Your task to perform on an android device: Open calendar and show me the third week of next month Image 0: 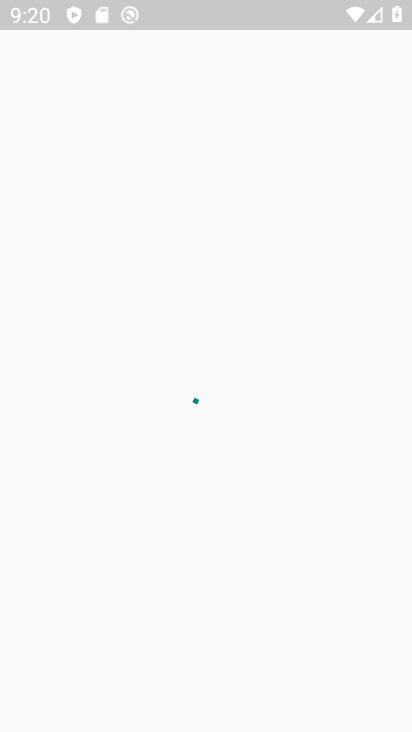
Step 0: press home button
Your task to perform on an android device: Open calendar and show me the third week of next month Image 1: 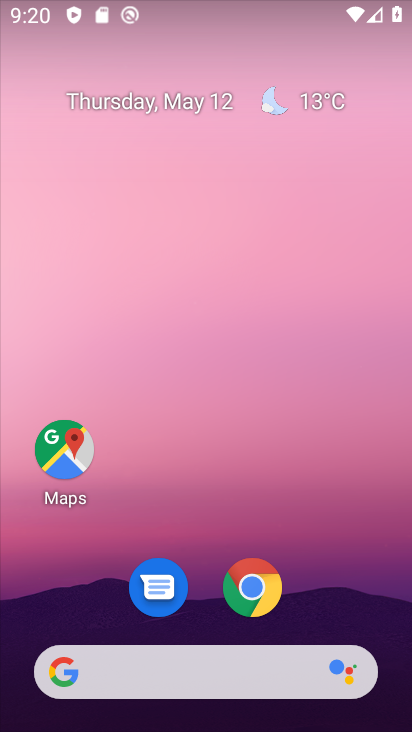
Step 1: drag from (378, 576) to (333, 78)
Your task to perform on an android device: Open calendar and show me the third week of next month Image 2: 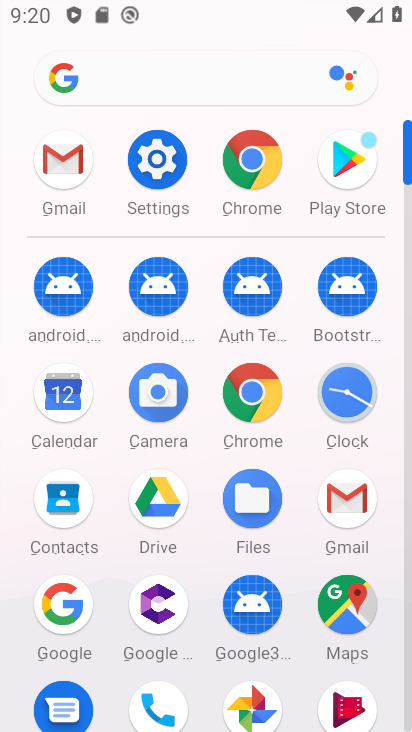
Step 2: click (61, 404)
Your task to perform on an android device: Open calendar and show me the third week of next month Image 3: 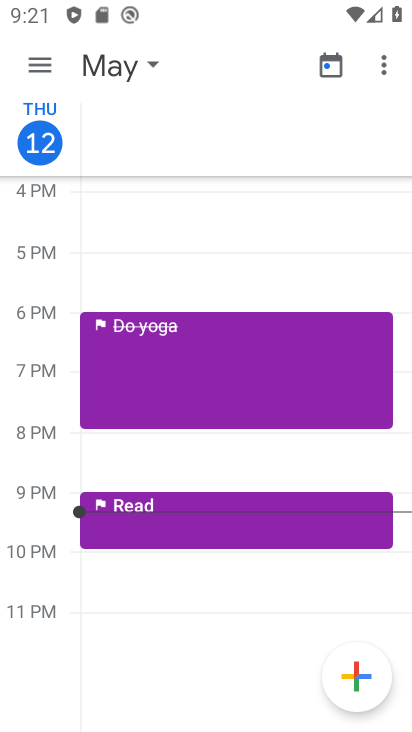
Step 3: click (132, 75)
Your task to perform on an android device: Open calendar and show me the third week of next month Image 4: 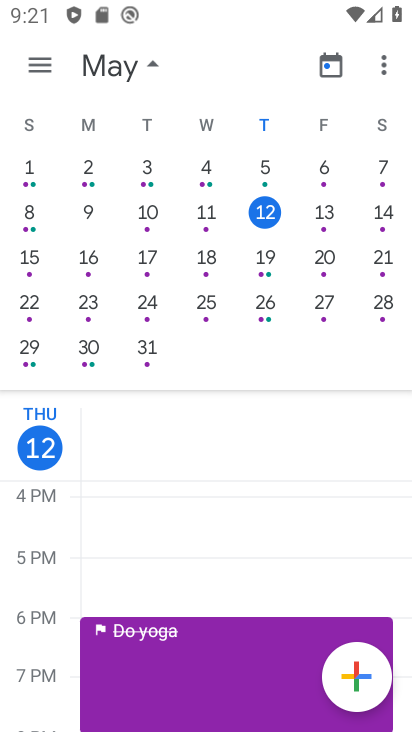
Step 4: drag from (345, 304) to (6, 191)
Your task to perform on an android device: Open calendar and show me the third week of next month Image 5: 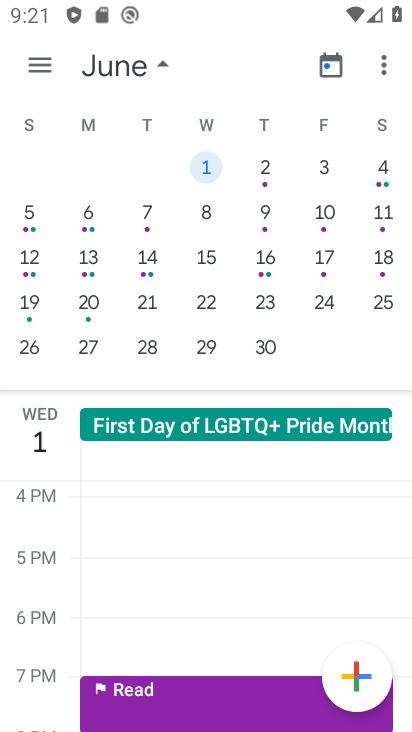
Step 5: click (151, 307)
Your task to perform on an android device: Open calendar and show me the third week of next month Image 6: 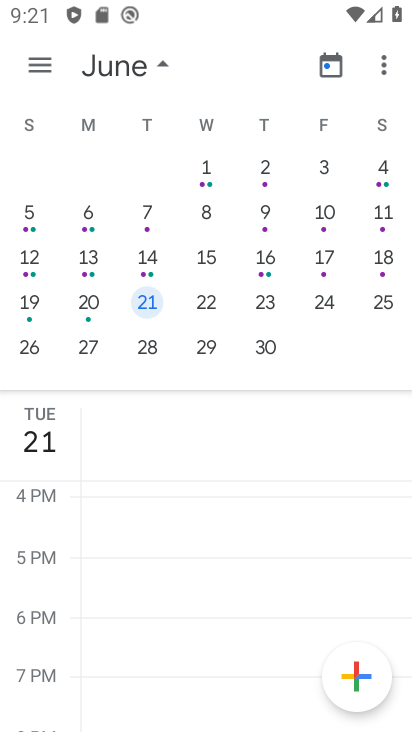
Step 6: task complete